Your task to perform on an android device: check battery use Image 0: 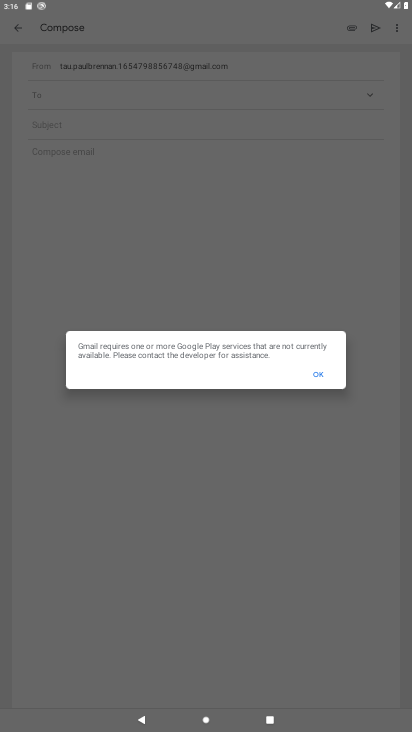
Step 0: press back button
Your task to perform on an android device: check battery use Image 1: 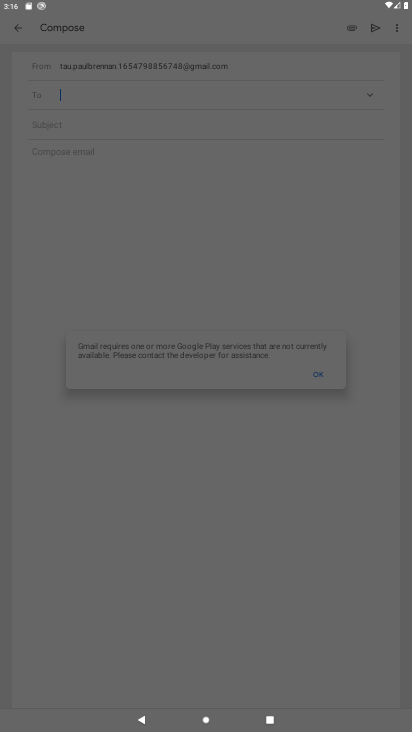
Step 1: press back button
Your task to perform on an android device: check battery use Image 2: 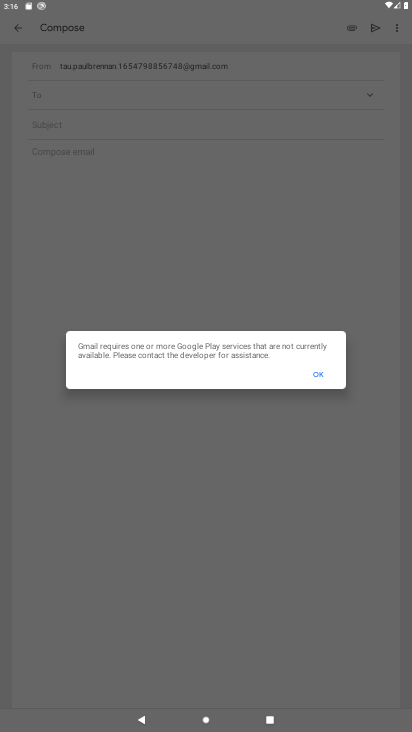
Step 2: press home button
Your task to perform on an android device: check battery use Image 3: 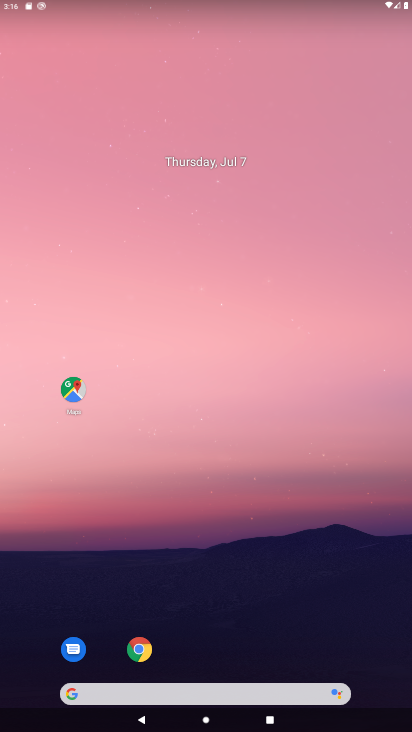
Step 3: drag from (200, 624) to (273, 3)
Your task to perform on an android device: check battery use Image 4: 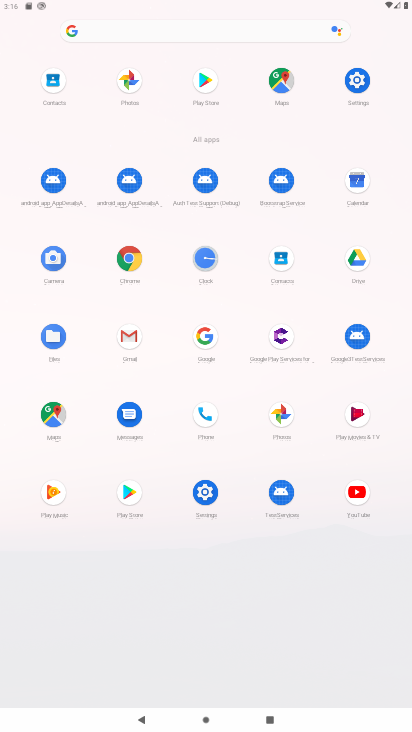
Step 4: click (356, 80)
Your task to perform on an android device: check battery use Image 5: 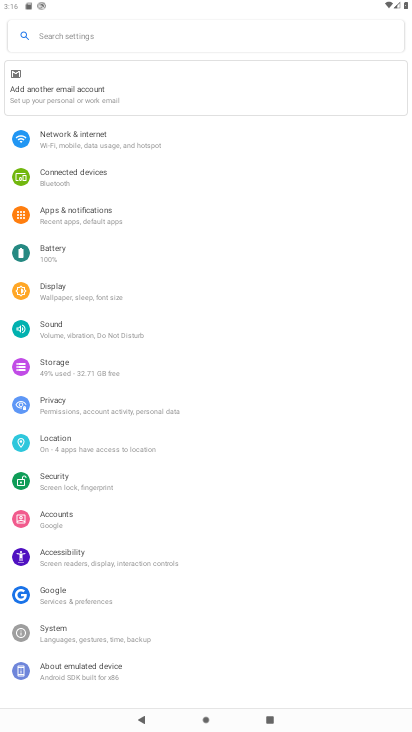
Step 5: click (36, 249)
Your task to perform on an android device: check battery use Image 6: 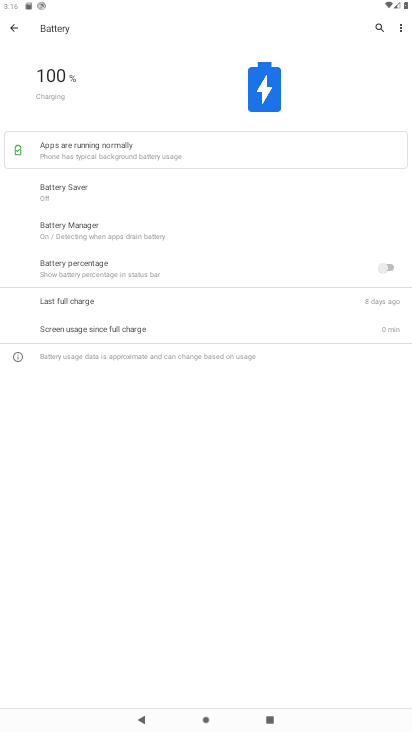
Step 6: click (400, 25)
Your task to perform on an android device: check battery use Image 7: 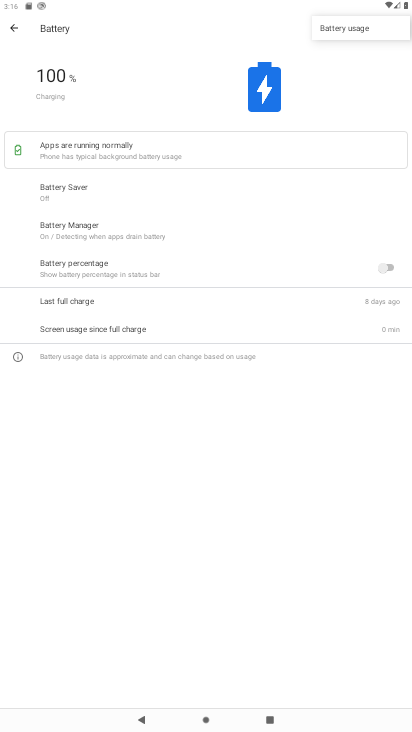
Step 7: click (389, 32)
Your task to perform on an android device: check battery use Image 8: 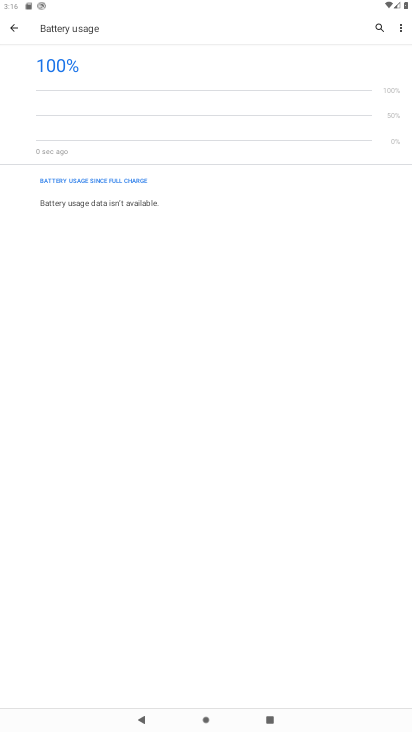
Step 8: task complete